Your task to perform on an android device: see tabs open on other devices in the chrome app Image 0: 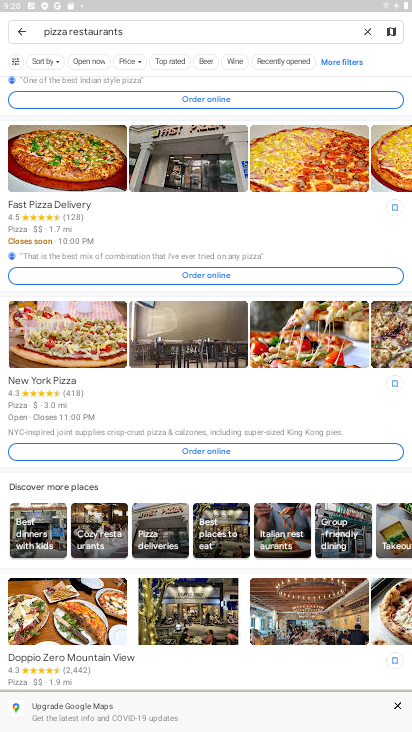
Step 0: press home button
Your task to perform on an android device: see tabs open on other devices in the chrome app Image 1: 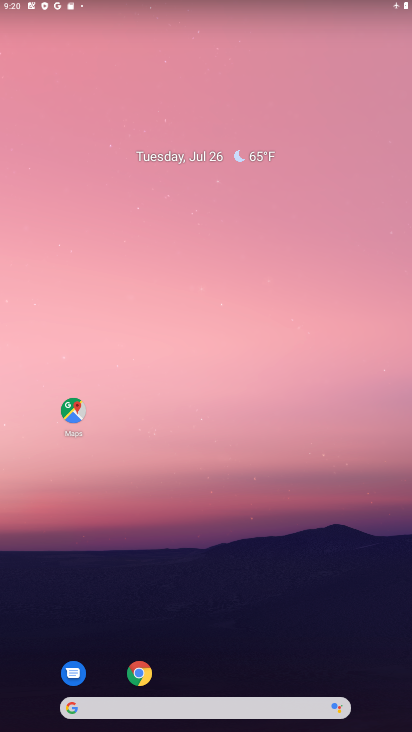
Step 1: click (141, 676)
Your task to perform on an android device: see tabs open on other devices in the chrome app Image 2: 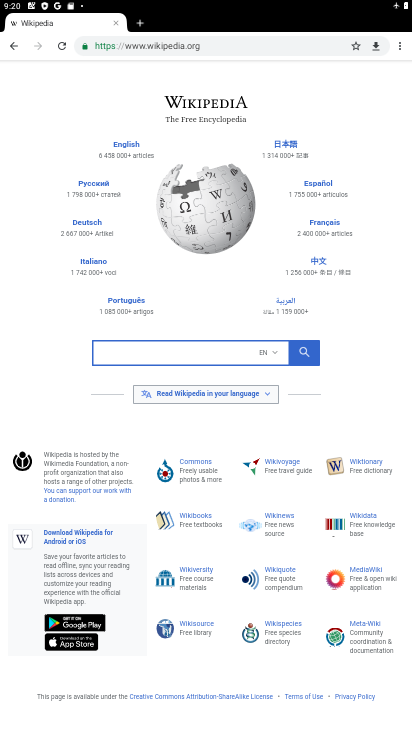
Step 2: click (399, 50)
Your task to perform on an android device: see tabs open on other devices in the chrome app Image 3: 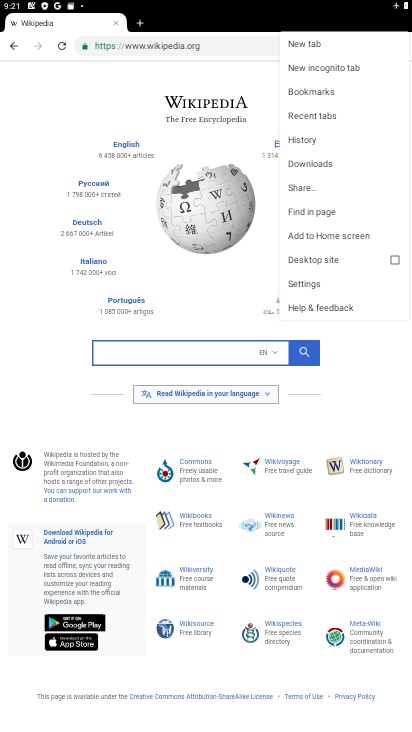
Step 3: click (300, 111)
Your task to perform on an android device: see tabs open on other devices in the chrome app Image 4: 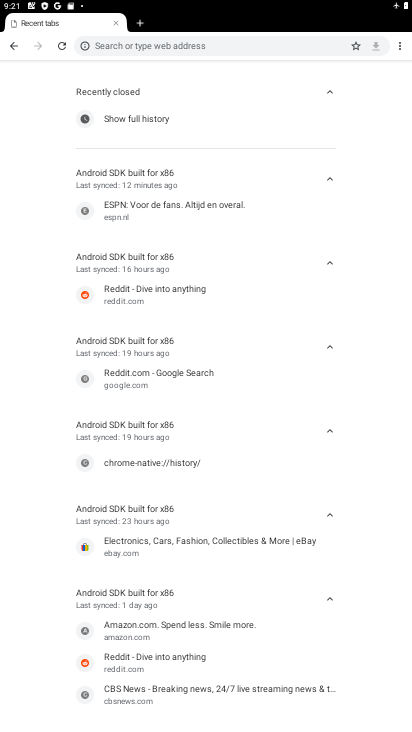
Step 4: task complete